Your task to perform on an android device: Open the phone app and click the voicemail tab. Image 0: 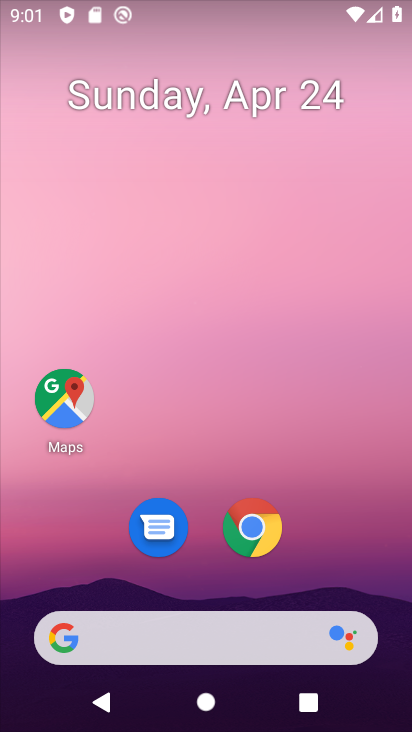
Step 0: drag from (232, 503) to (314, 81)
Your task to perform on an android device: Open the phone app and click the voicemail tab. Image 1: 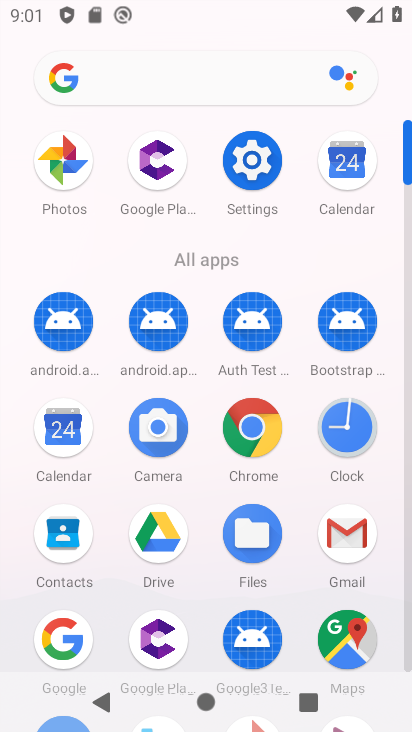
Step 1: drag from (192, 590) to (364, 76)
Your task to perform on an android device: Open the phone app and click the voicemail tab. Image 2: 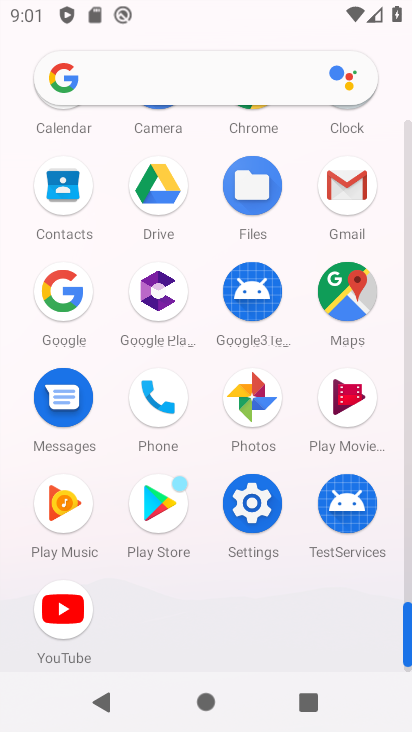
Step 2: click (156, 395)
Your task to perform on an android device: Open the phone app and click the voicemail tab. Image 3: 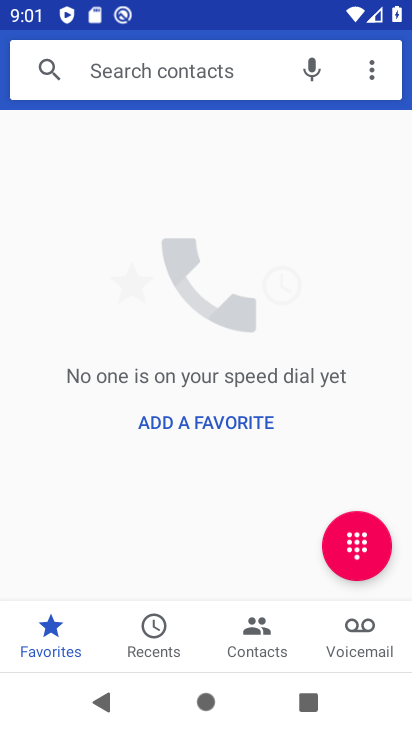
Step 3: click (355, 633)
Your task to perform on an android device: Open the phone app and click the voicemail tab. Image 4: 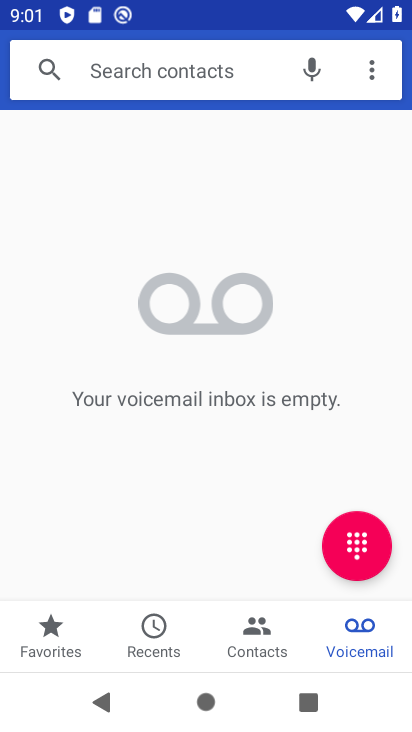
Step 4: task complete